Your task to perform on an android device: What's the weather going to be this weekend? Image 0: 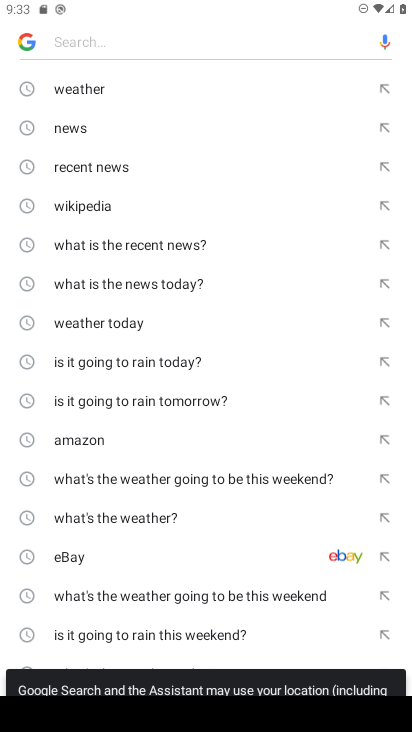
Step 0: press home button
Your task to perform on an android device: What's the weather going to be this weekend? Image 1: 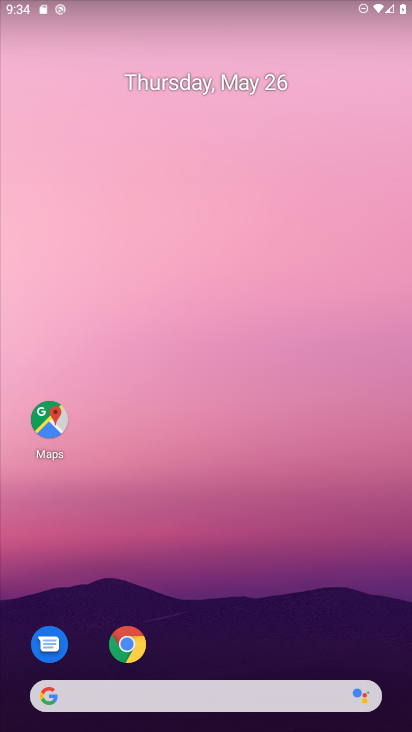
Step 1: drag from (14, 310) to (408, 296)
Your task to perform on an android device: What's the weather going to be this weekend? Image 2: 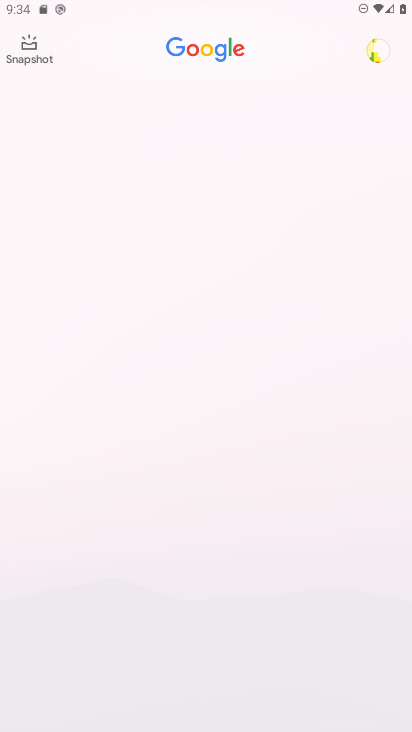
Step 2: drag from (172, 170) to (170, 553)
Your task to perform on an android device: What's the weather going to be this weekend? Image 3: 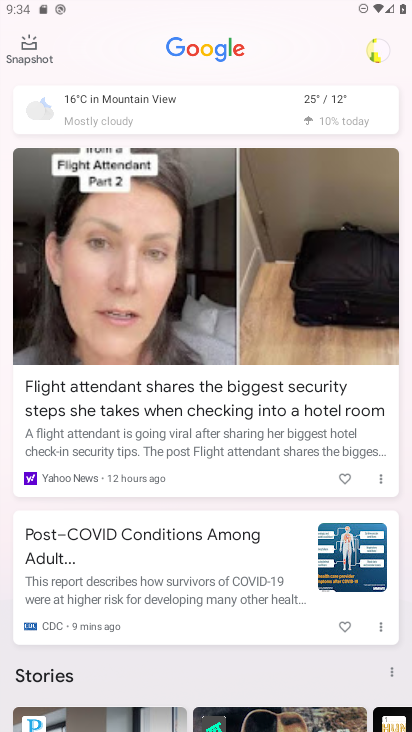
Step 3: click (334, 119)
Your task to perform on an android device: What's the weather going to be this weekend? Image 4: 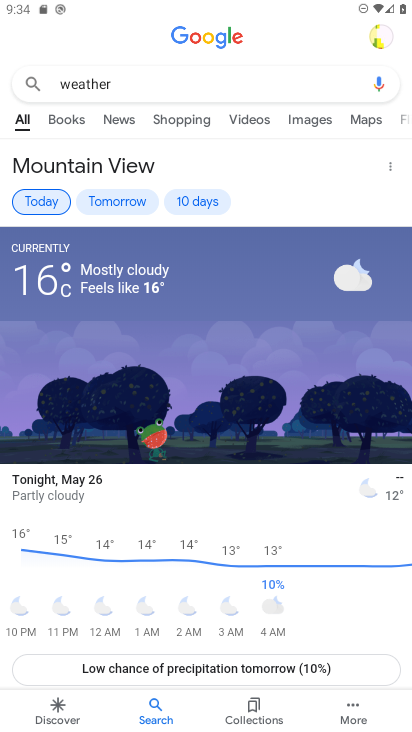
Step 4: click (256, 439)
Your task to perform on an android device: What's the weather going to be this weekend? Image 5: 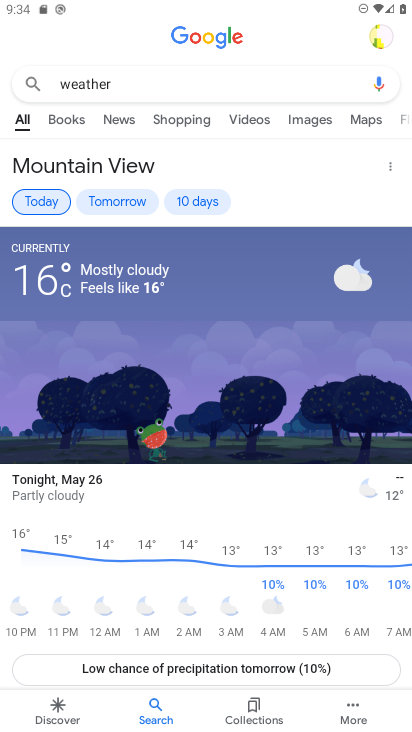
Step 5: click (244, 364)
Your task to perform on an android device: What's the weather going to be this weekend? Image 6: 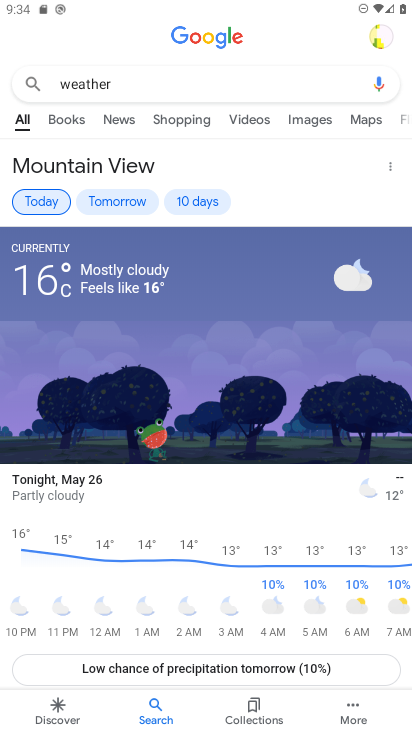
Step 6: click (206, 204)
Your task to perform on an android device: What's the weather going to be this weekend? Image 7: 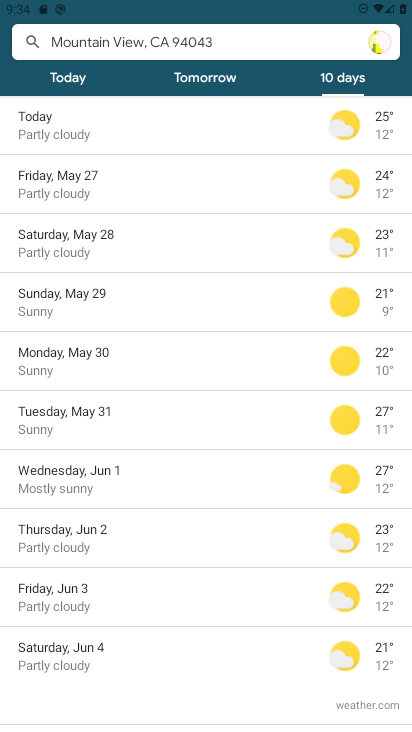
Step 7: task complete